Your task to perform on an android device: change timer sound Image 0: 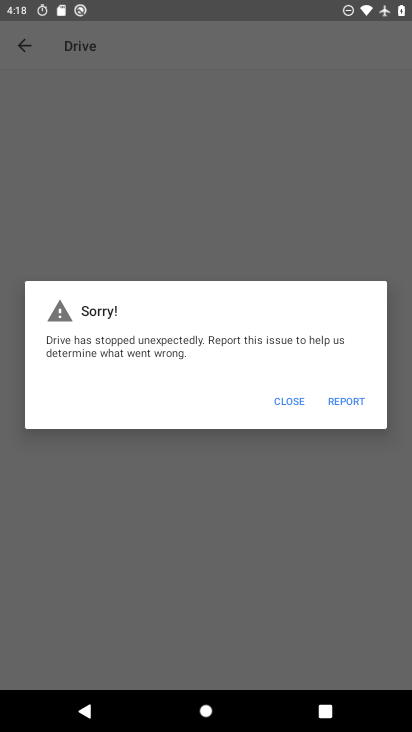
Step 0: press home button
Your task to perform on an android device: change timer sound Image 1: 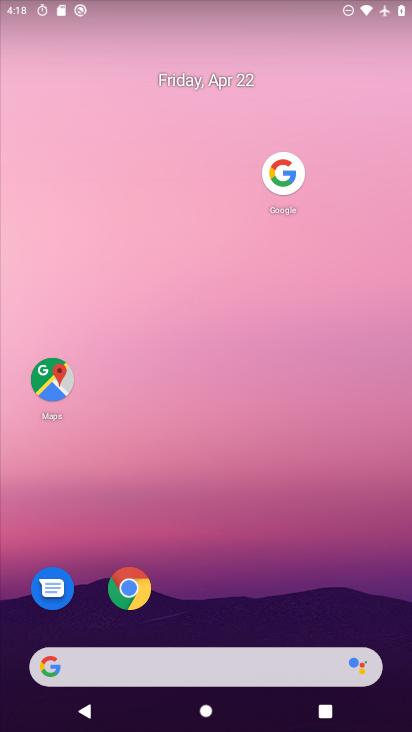
Step 1: drag from (203, 623) to (210, 7)
Your task to perform on an android device: change timer sound Image 2: 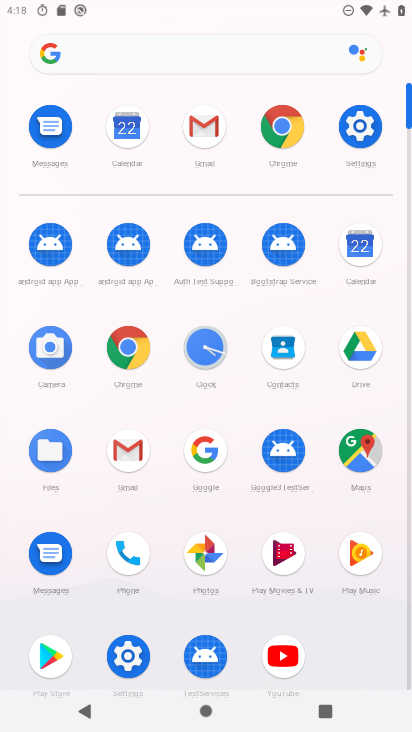
Step 2: click (194, 355)
Your task to perform on an android device: change timer sound Image 3: 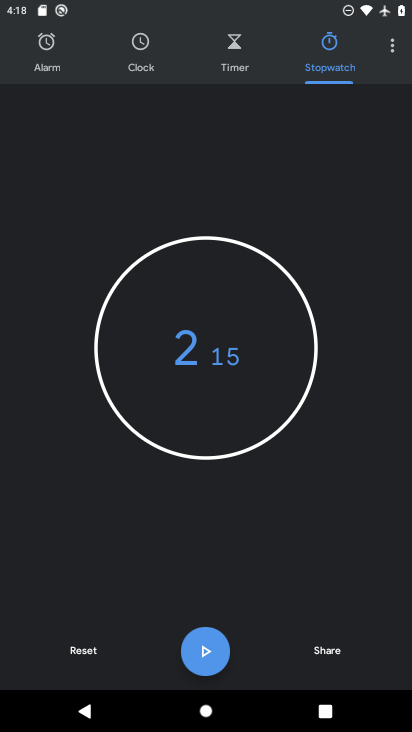
Step 3: click (389, 60)
Your task to perform on an android device: change timer sound Image 4: 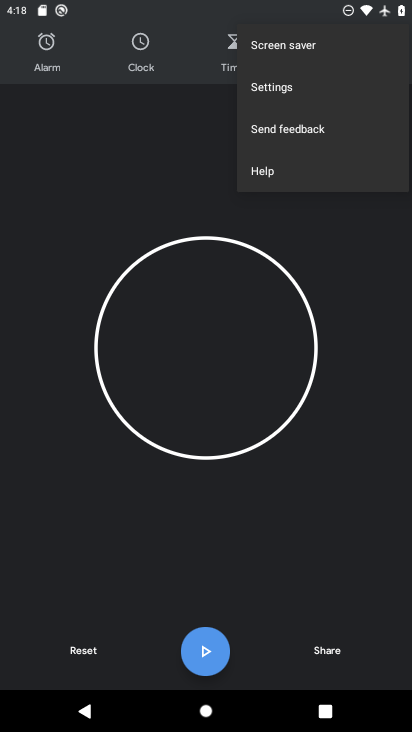
Step 4: click (280, 91)
Your task to perform on an android device: change timer sound Image 5: 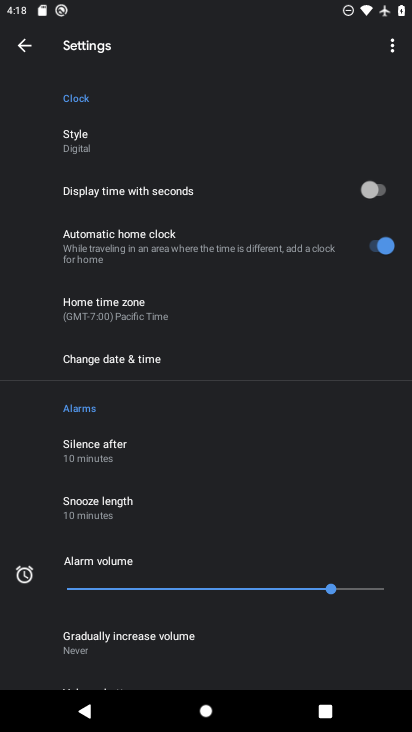
Step 5: drag from (104, 519) to (115, 171)
Your task to perform on an android device: change timer sound Image 6: 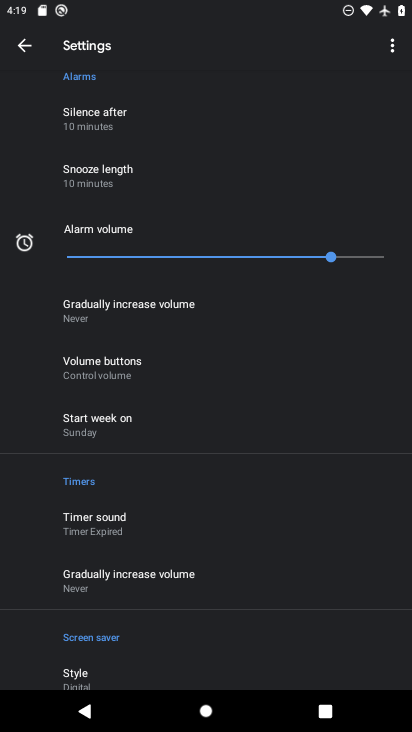
Step 6: click (111, 515)
Your task to perform on an android device: change timer sound Image 7: 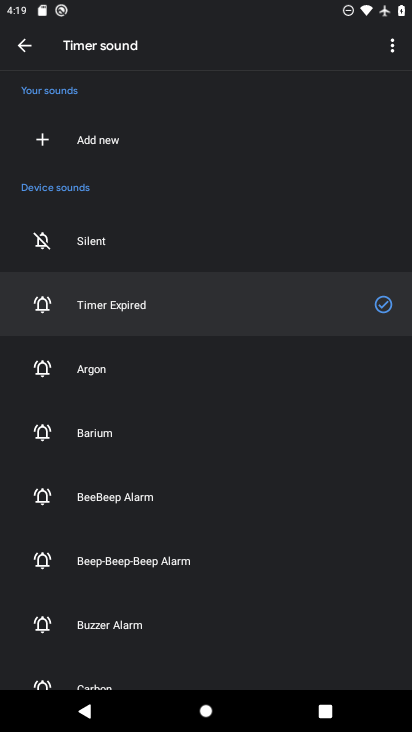
Step 7: click (140, 374)
Your task to perform on an android device: change timer sound Image 8: 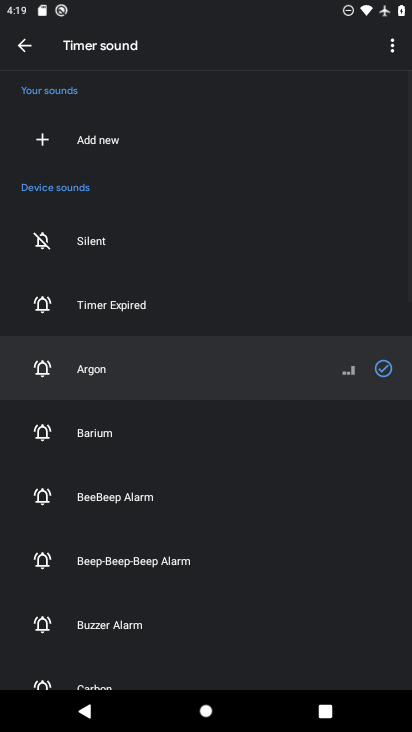
Step 8: task complete